Your task to perform on an android device: Search for the best fantasy books on Goodreads. Image 0: 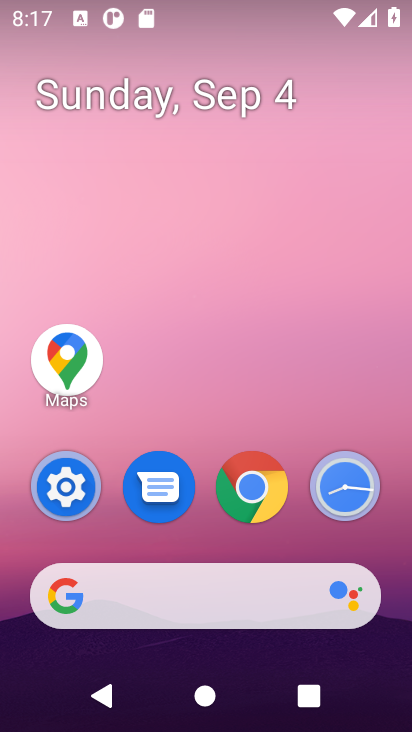
Step 0: click (245, 598)
Your task to perform on an android device: Search for the best fantasy books on Goodreads. Image 1: 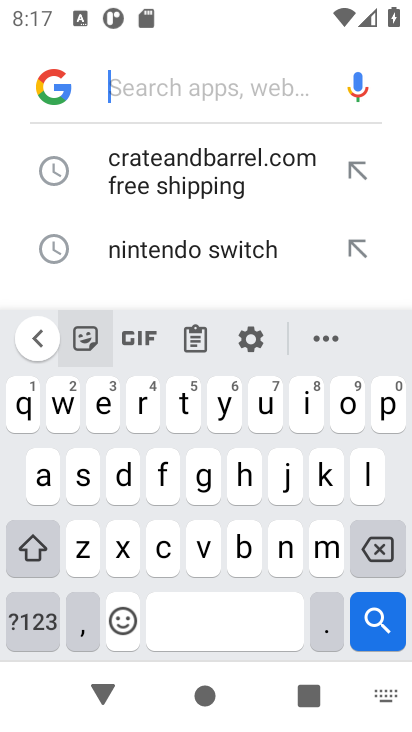
Step 1: type "Goodreads."
Your task to perform on an android device: Search for the best fantasy books on Goodreads. Image 2: 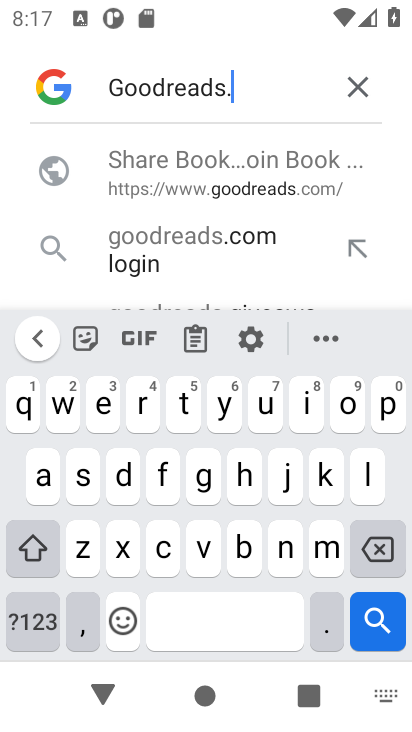
Step 2: click (182, 237)
Your task to perform on an android device: Search for the best fantasy books on Goodreads. Image 3: 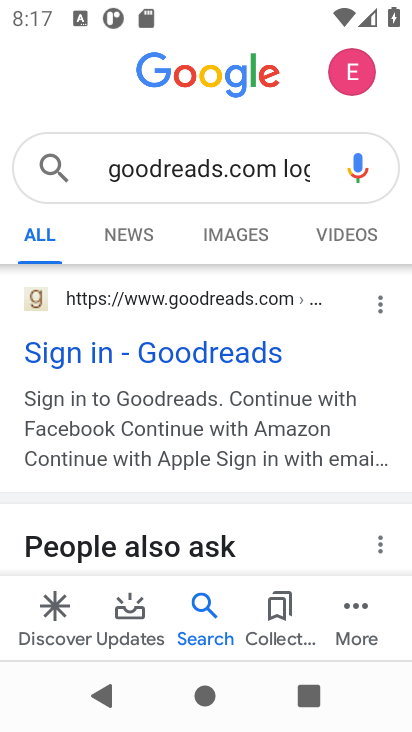
Step 3: click (219, 368)
Your task to perform on an android device: Search for the best fantasy books on Goodreads. Image 4: 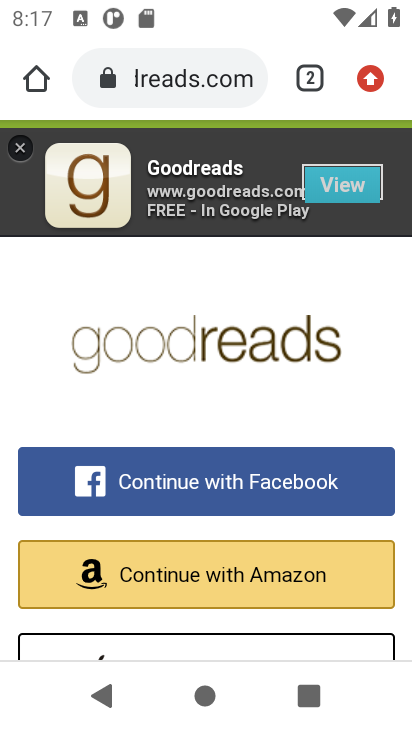
Step 4: drag from (141, 409) to (289, 28)
Your task to perform on an android device: Search for the best fantasy books on Goodreads. Image 5: 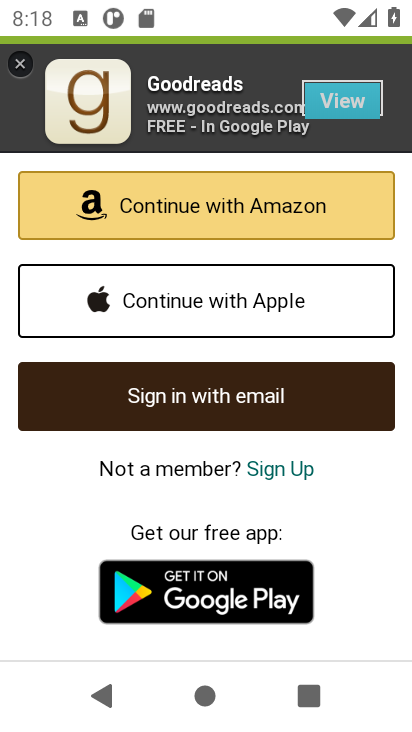
Step 5: click (216, 404)
Your task to perform on an android device: Search for the best fantasy books on Goodreads. Image 6: 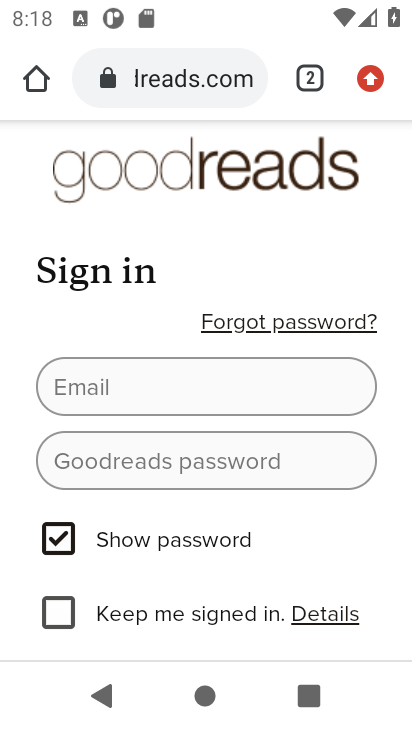
Step 6: press back button
Your task to perform on an android device: Search for the best fantasy books on Goodreads. Image 7: 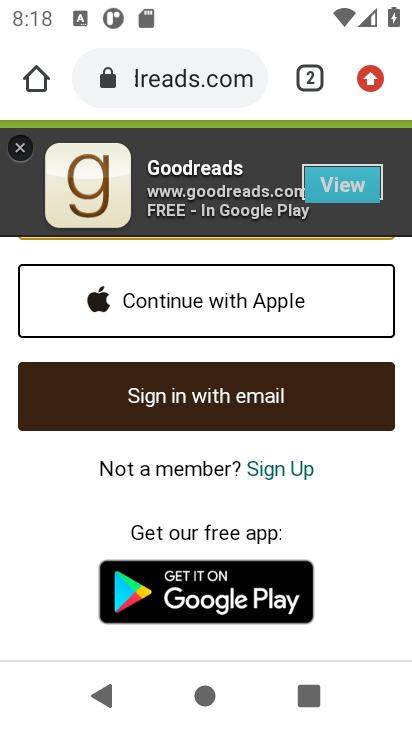
Step 7: press back button
Your task to perform on an android device: Search for the best fantasy books on Goodreads. Image 8: 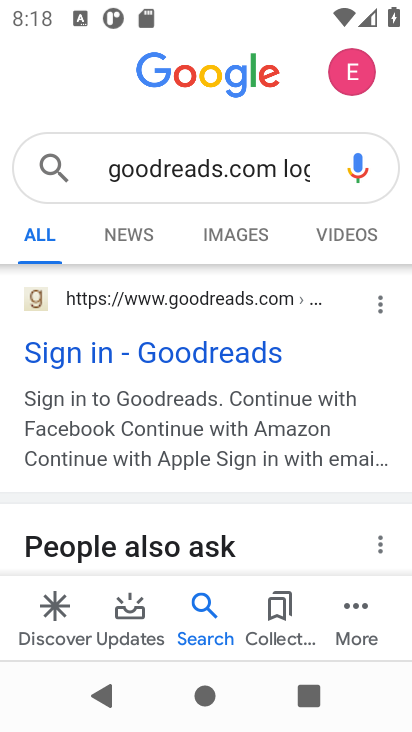
Step 8: drag from (221, 483) to (236, 107)
Your task to perform on an android device: Search for the best fantasy books on Goodreads. Image 9: 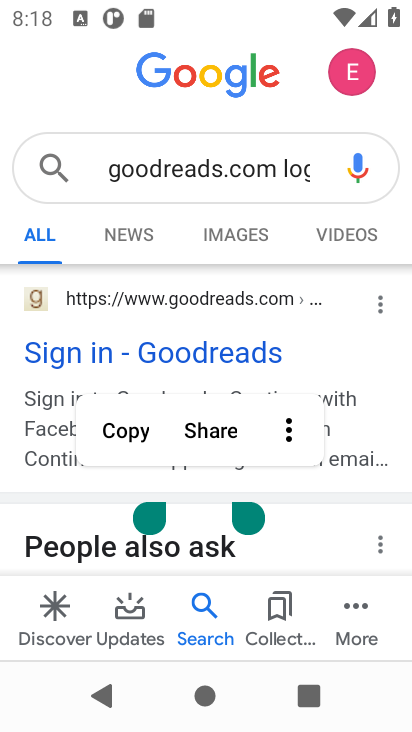
Step 9: drag from (288, 477) to (288, 34)
Your task to perform on an android device: Search for the best fantasy books on Goodreads. Image 10: 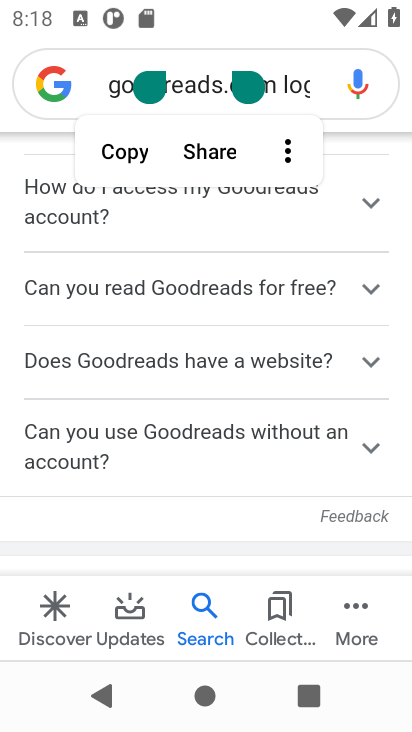
Step 10: drag from (103, 541) to (174, 202)
Your task to perform on an android device: Search for the best fantasy books on Goodreads. Image 11: 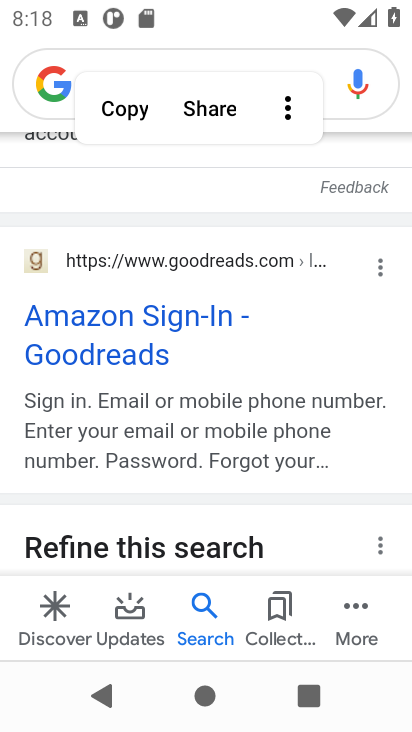
Step 11: click (165, 244)
Your task to perform on an android device: Search for the best fantasy books on Goodreads. Image 12: 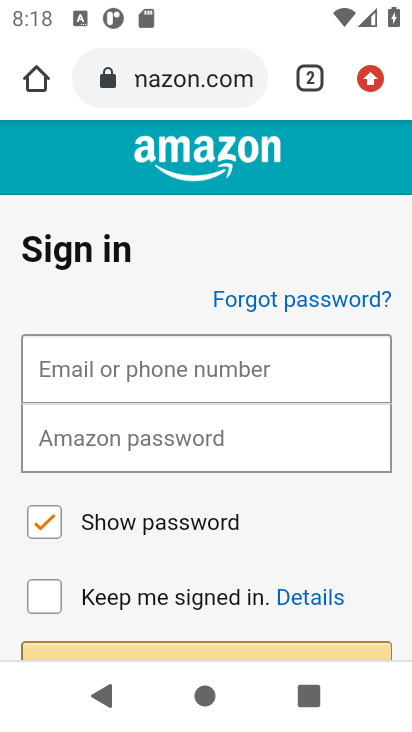
Step 12: press back button
Your task to perform on an android device: Search for the best fantasy books on Goodreads. Image 13: 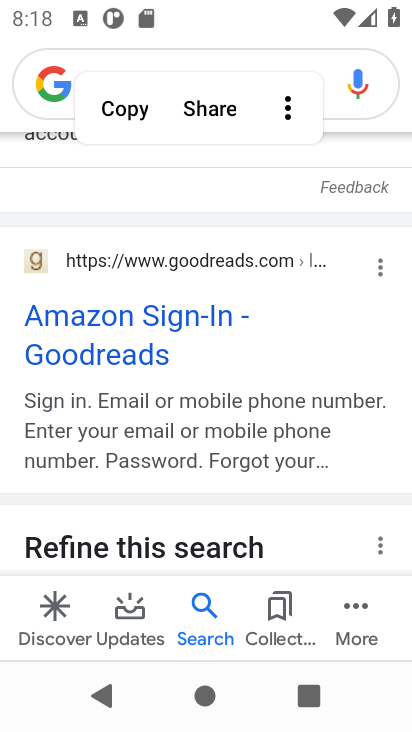
Step 13: click (321, 65)
Your task to perform on an android device: Search for the best fantasy books on Goodreads. Image 14: 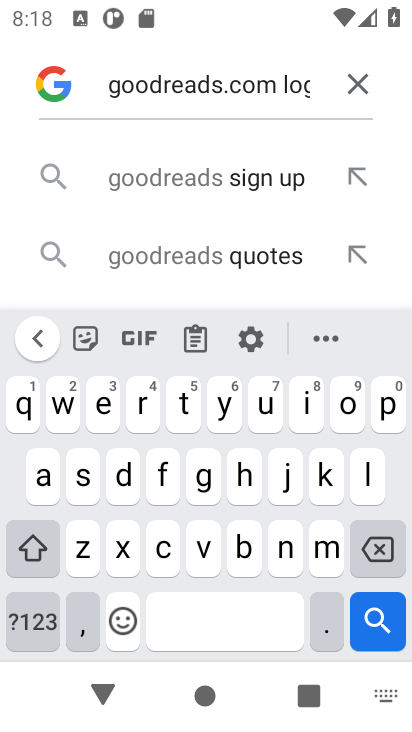
Step 14: click (356, 79)
Your task to perform on an android device: Search for the best fantasy books on Goodreads. Image 15: 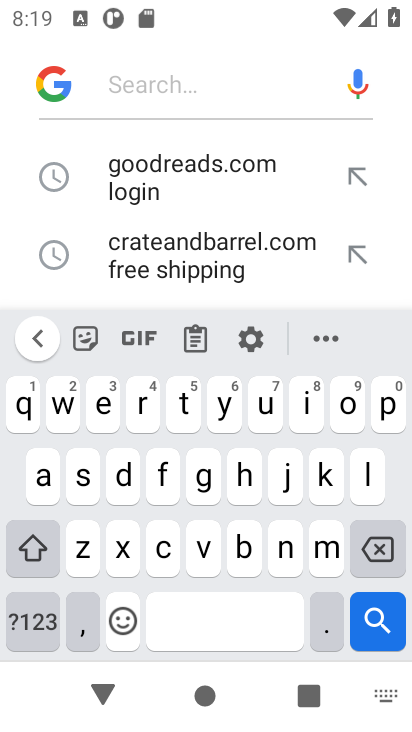
Step 15: type "Goodreads."
Your task to perform on an android device: Search for the best fantasy books on Goodreads. Image 16: 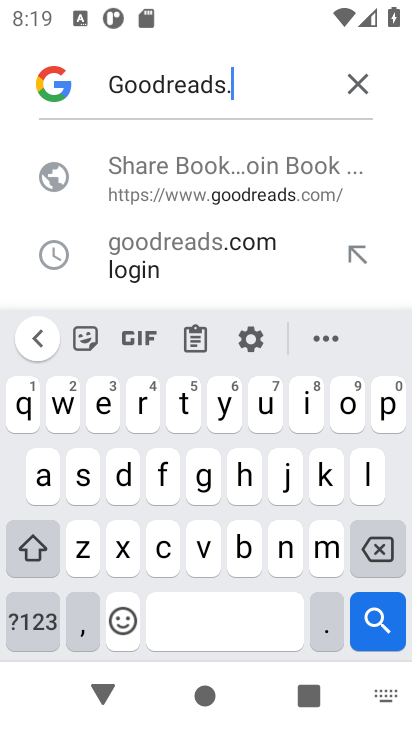
Step 16: click (374, 640)
Your task to perform on an android device: Search for the best fantasy books on Goodreads. Image 17: 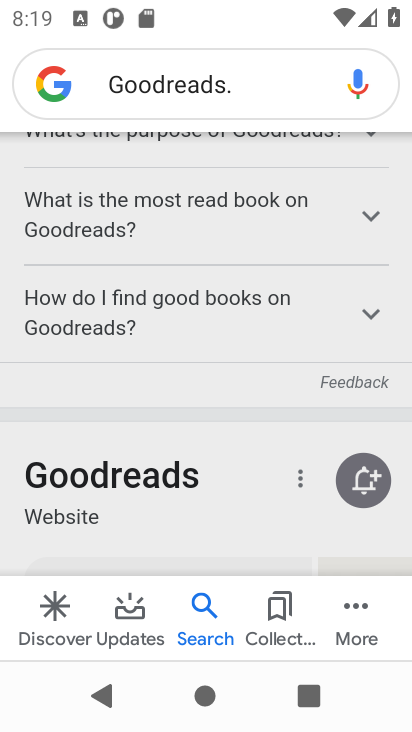
Step 17: click (130, 461)
Your task to perform on an android device: Search for the best fantasy books on Goodreads. Image 18: 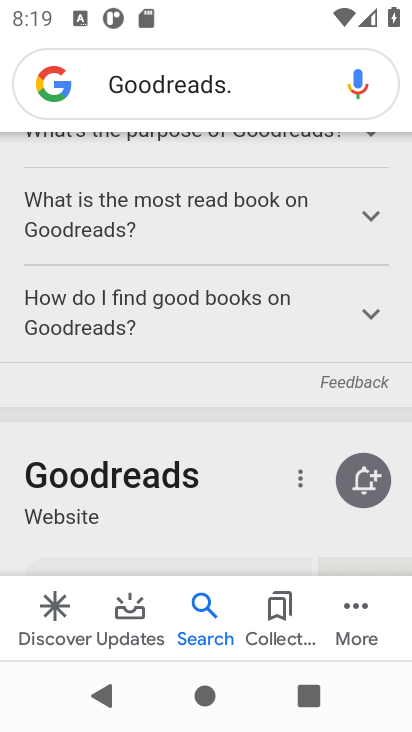
Step 18: drag from (110, 498) to (155, 189)
Your task to perform on an android device: Search for the best fantasy books on Goodreads. Image 19: 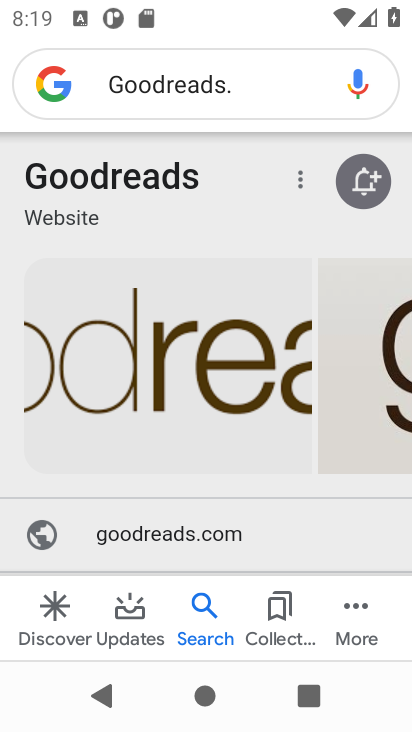
Step 19: click (141, 540)
Your task to perform on an android device: Search for the best fantasy books on Goodreads. Image 20: 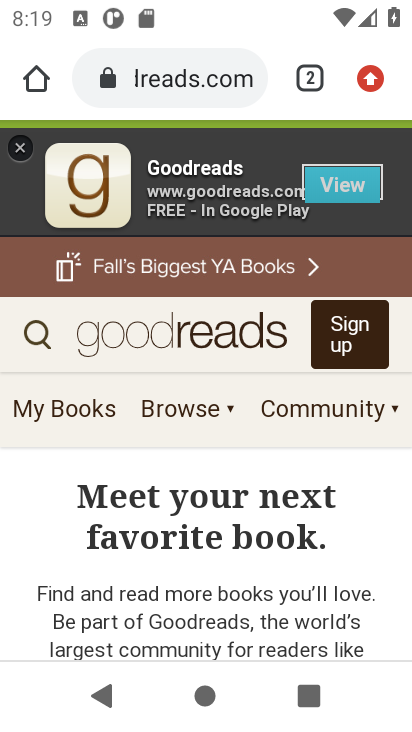
Step 20: click (219, 412)
Your task to perform on an android device: Search for the best fantasy books on Goodreads. Image 21: 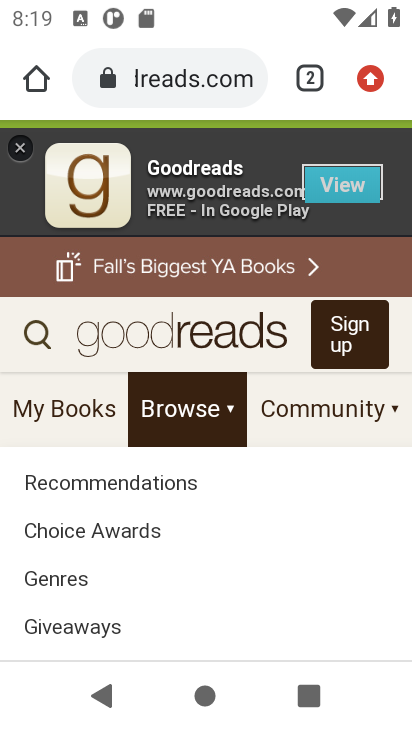
Step 21: click (130, 317)
Your task to perform on an android device: Search for the best fantasy books on Goodreads. Image 22: 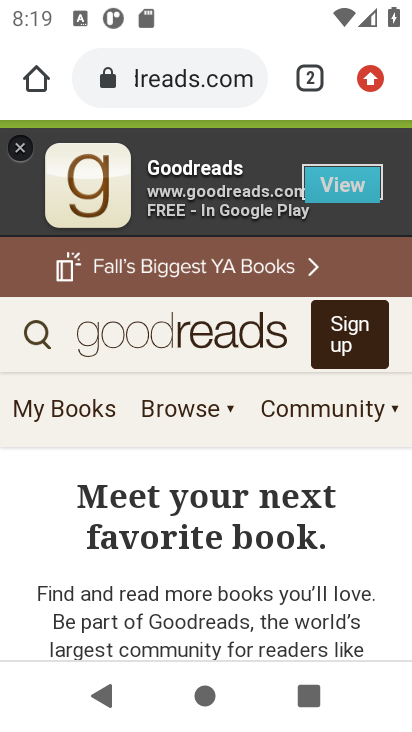
Step 22: click (90, 325)
Your task to perform on an android device: Search for the best fantasy books on Goodreads. Image 23: 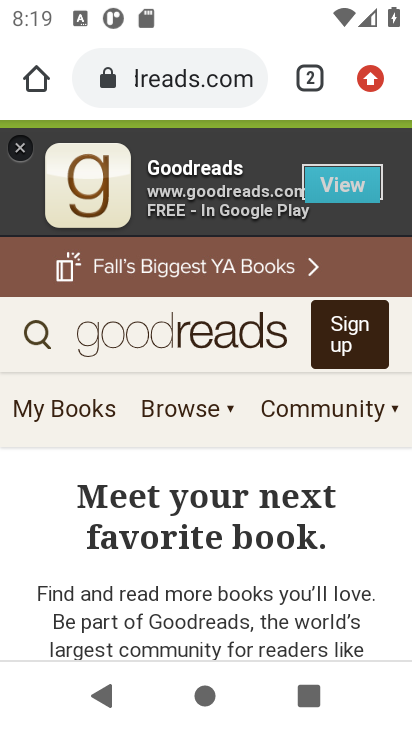
Step 23: click (42, 334)
Your task to perform on an android device: Search for the best fantasy books on Goodreads. Image 24: 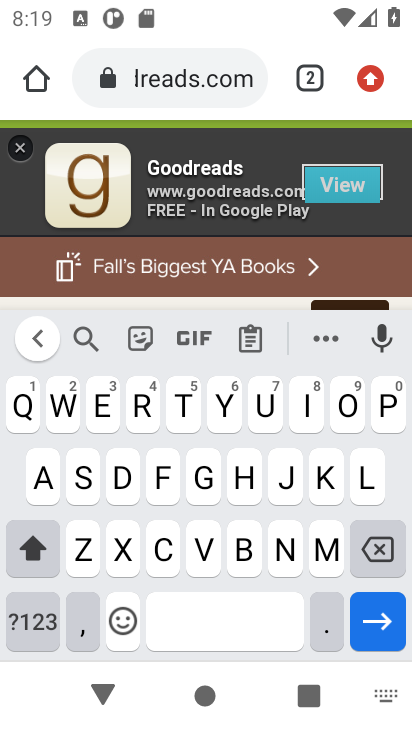
Step 24: type "best fantasy books"
Your task to perform on an android device: Search for the best fantasy books on Goodreads. Image 25: 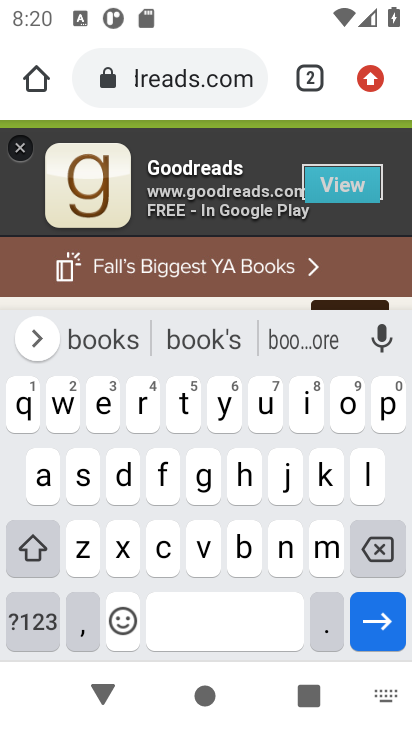
Step 25: click (385, 701)
Your task to perform on an android device: Search for the best fantasy books on Goodreads. Image 26: 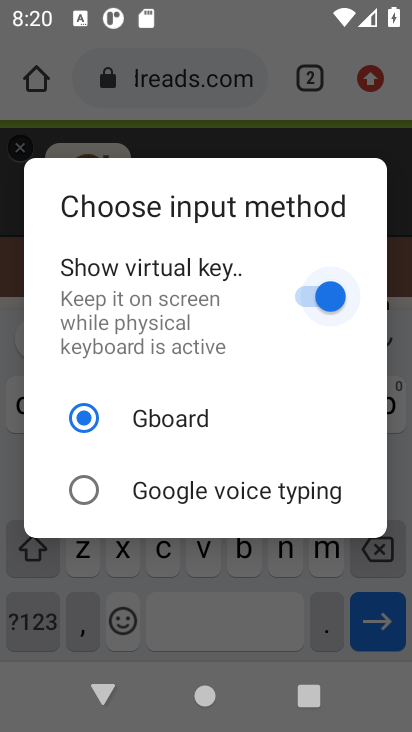
Step 26: click (327, 302)
Your task to perform on an android device: Search for the best fantasy books on Goodreads. Image 27: 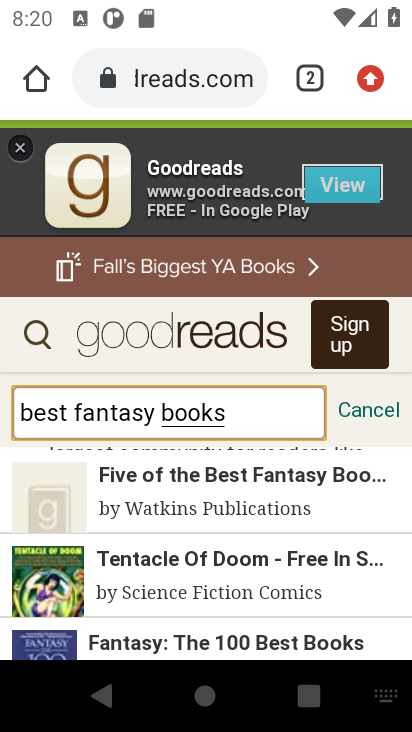
Step 27: click (228, 483)
Your task to perform on an android device: Search for the best fantasy books on Goodreads. Image 28: 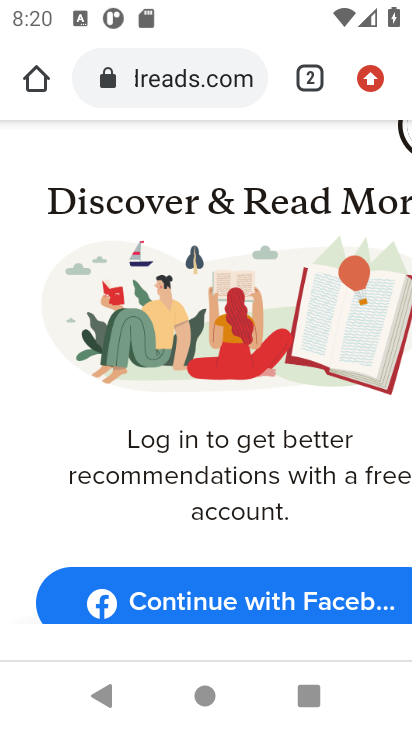
Step 28: task complete